Your task to perform on an android device: delete location history Image 0: 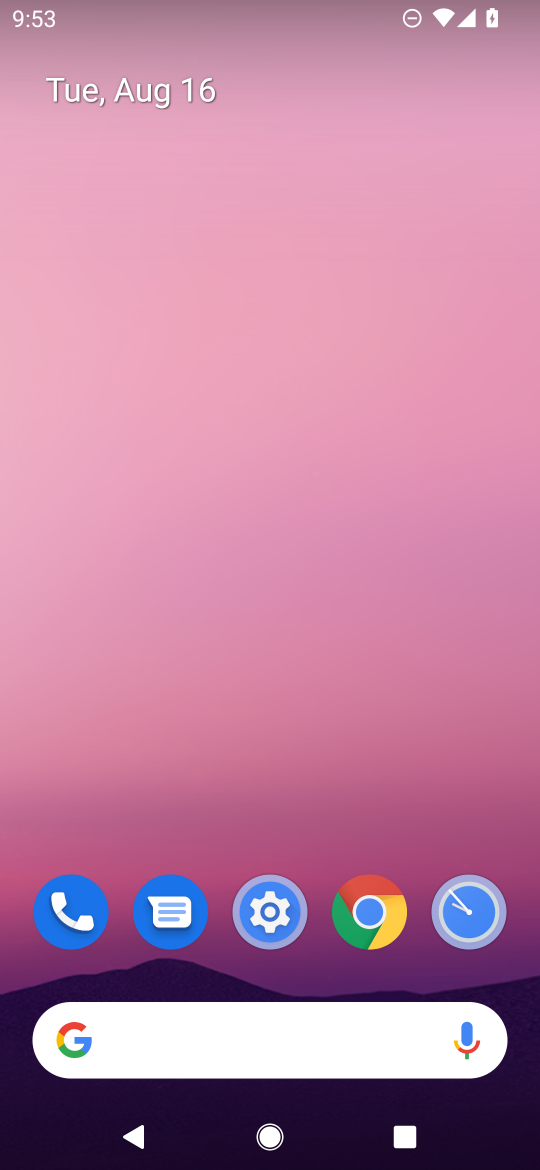
Step 0: drag from (204, 970) to (213, 84)
Your task to perform on an android device: delete location history Image 1: 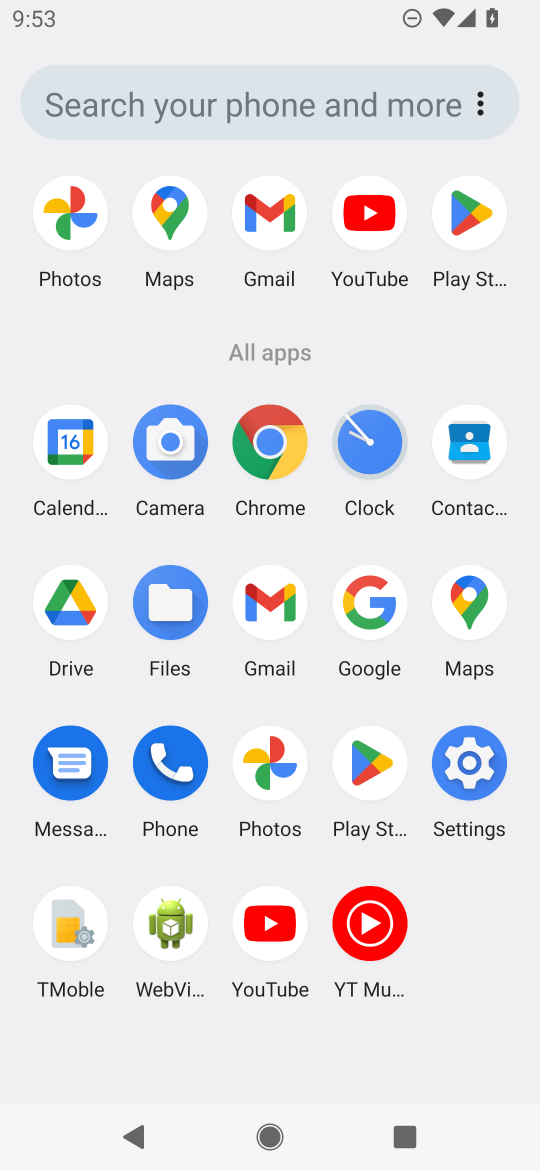
Step 1: click (177, 197)
Your task to perform on an android device: delete location history Image 2: 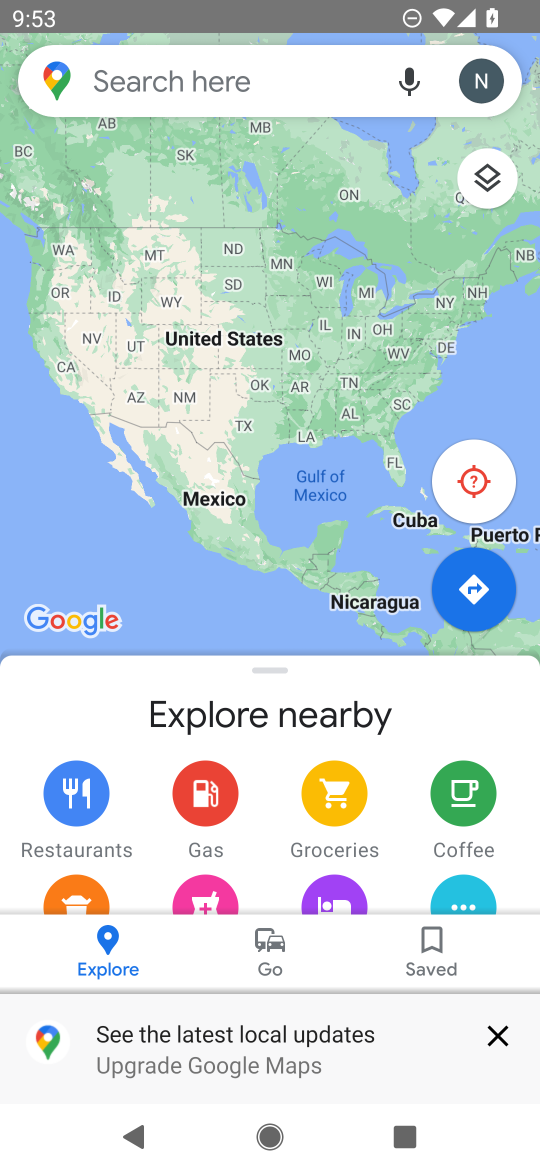
Step 2: click (492, 89)
Your task to perform on an android device: delete location history Image 3: 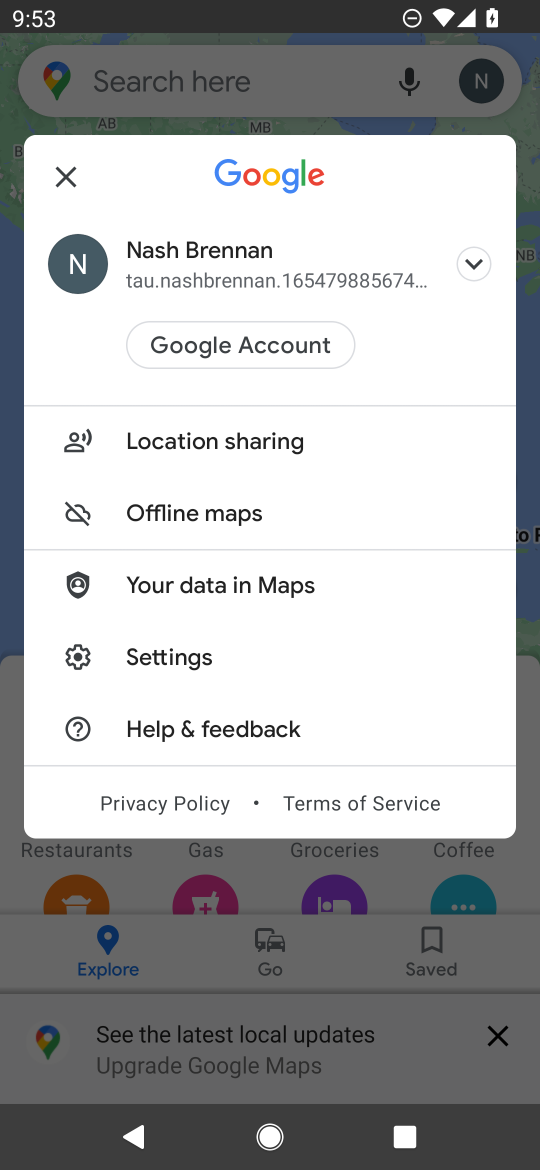
Step 3: click (254, 648)
Your task to perform on an android device: delete location history Image 4: 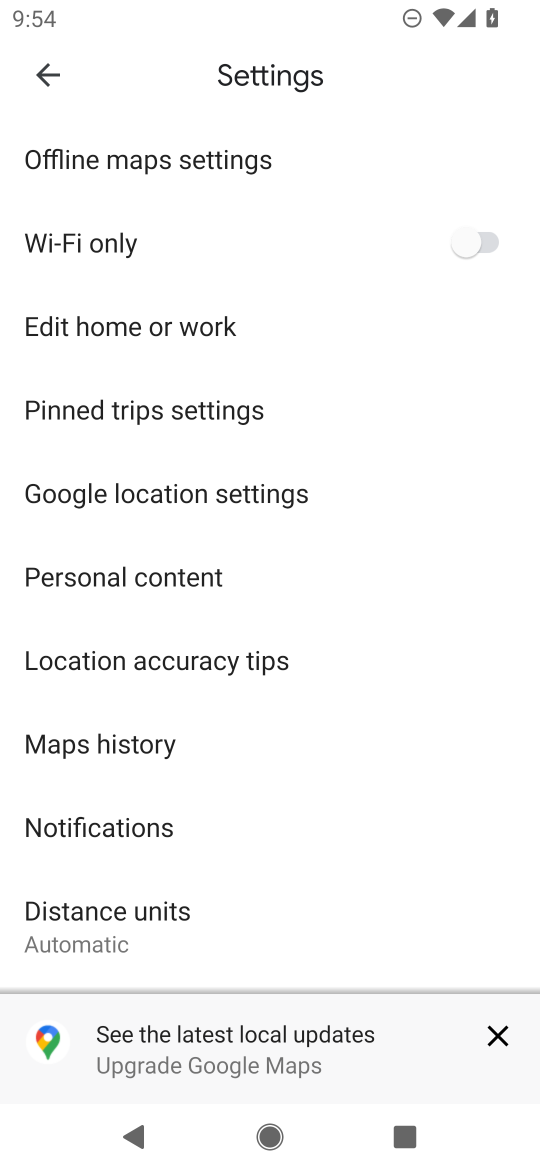
Step 4: click (41, 86)
Your task to perform on an android device: delete location history Image 5: 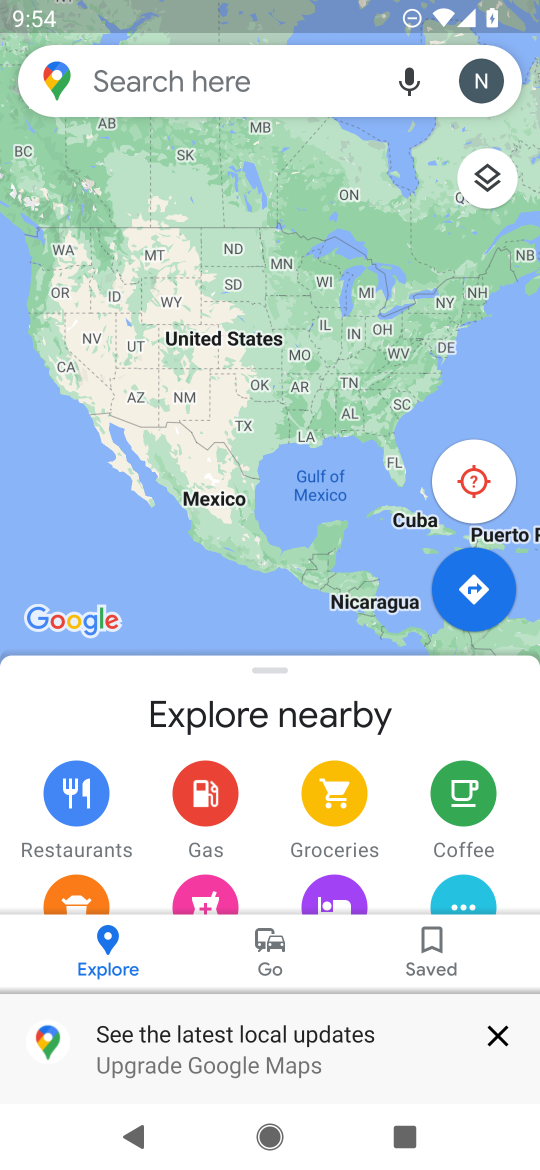
Step 5: click (469, 89)
Your task to perform on an android device: delete location history Image 6: 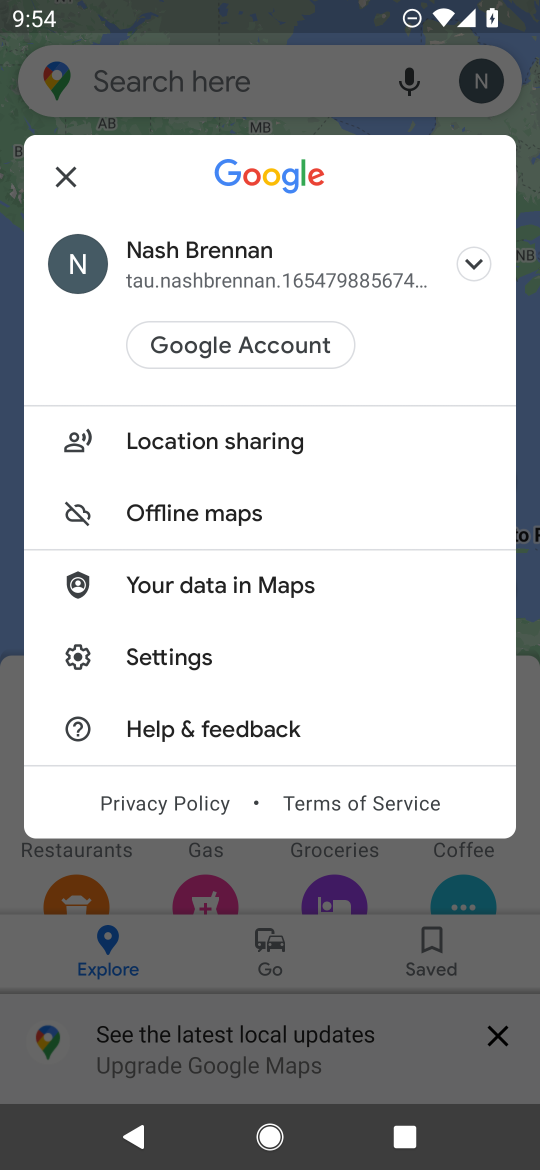
Step 6: click (183, 638)
Your task to perform on an android device: delete location history Image 7: 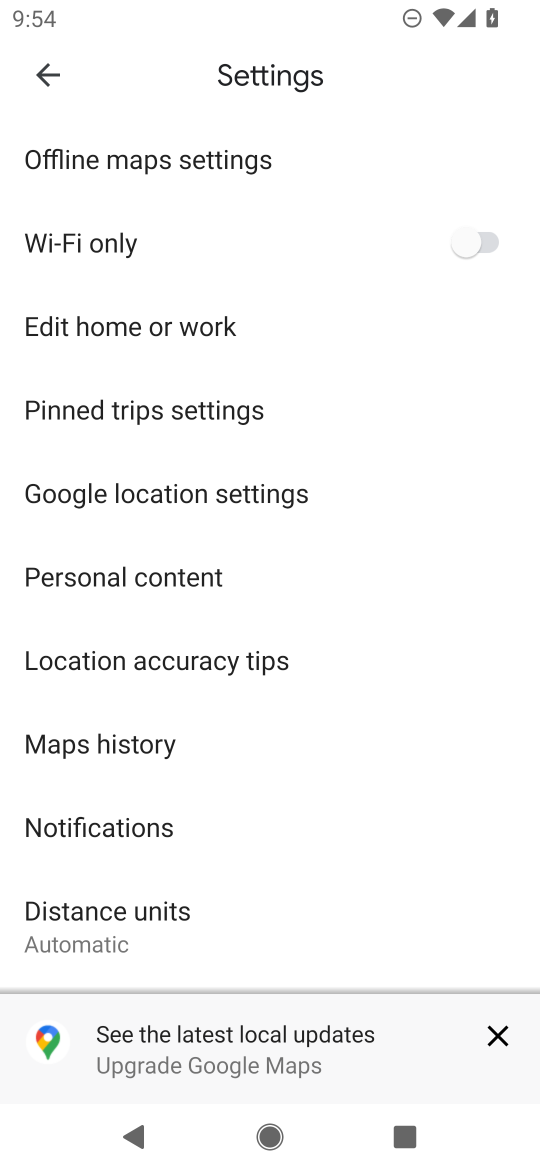
Step 7: click (182, 765)
Your task to perform on an android device: delete location history Image 8: 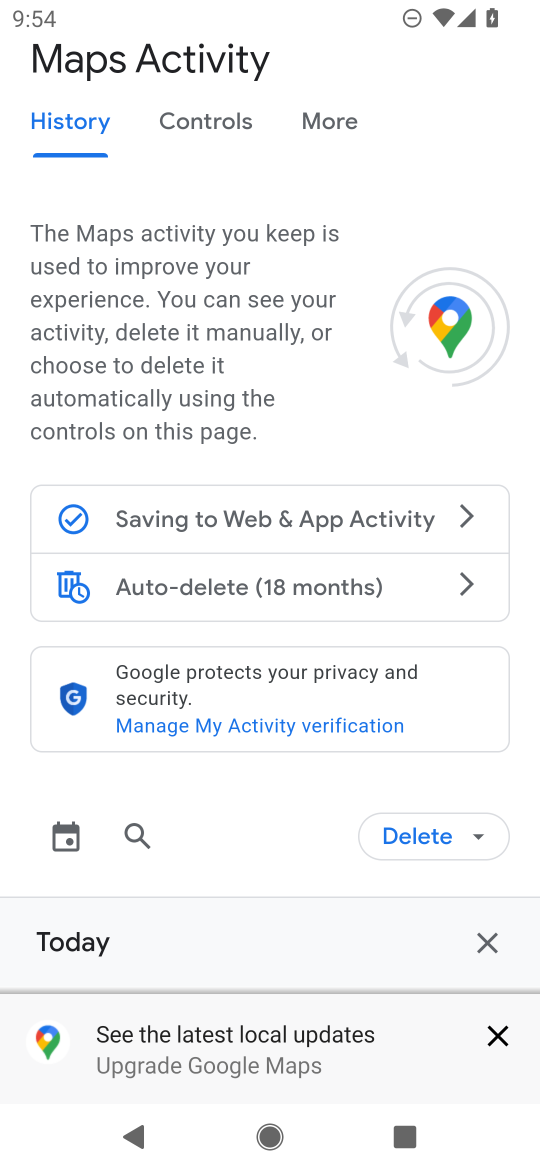
Step 8: click (446, 839)
Your task to perform on an android device: delete location history Image 9: 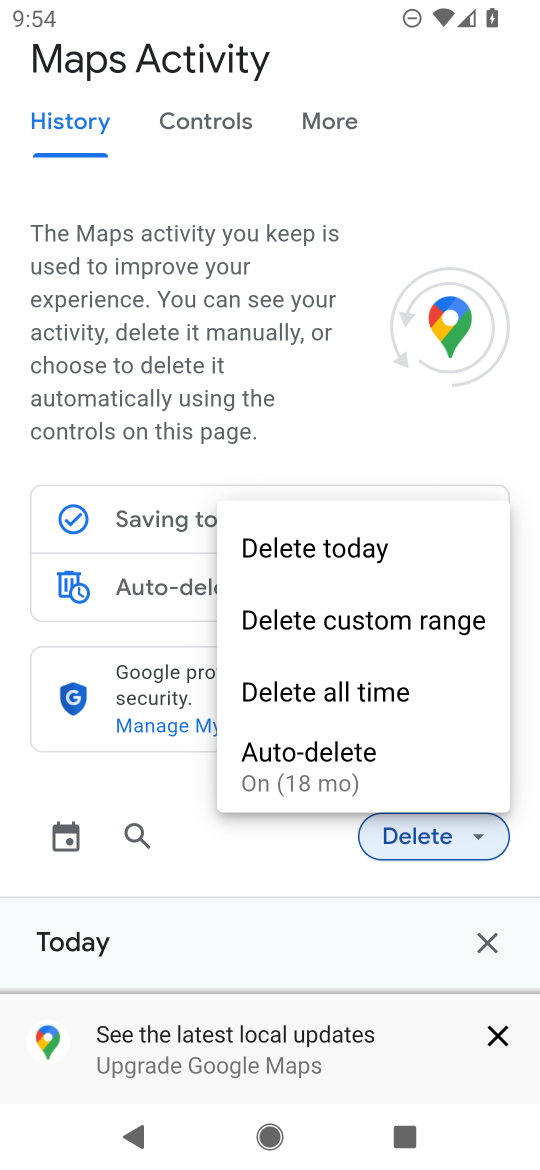
Step 9: click (342, 700)
Your task to perform on an android device: delete location history Image 10: 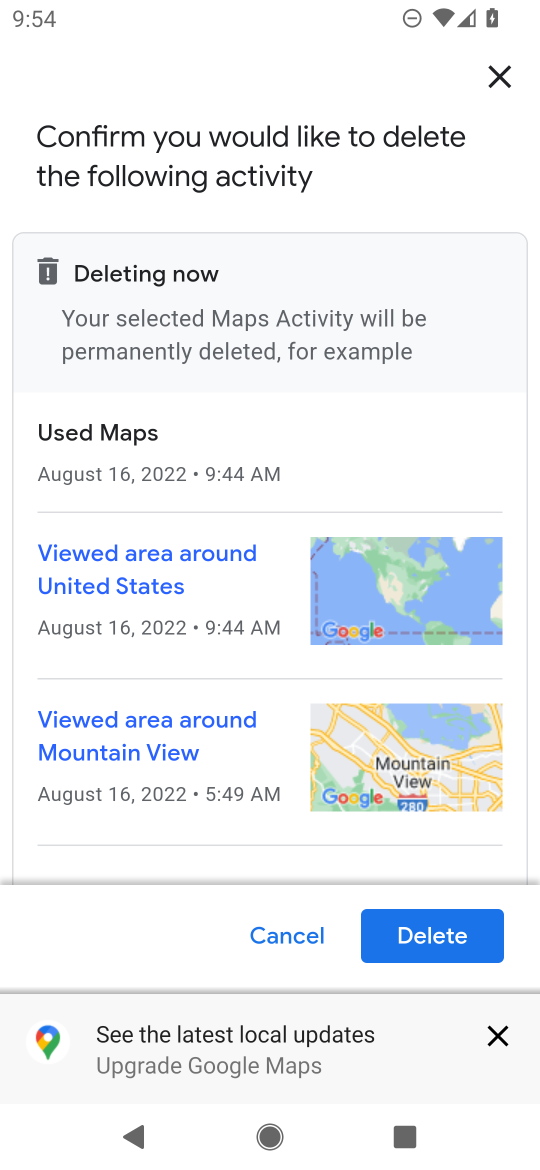
Step 10: click (439, 930)
Your task to perform on an android device: delete location history Image 11: 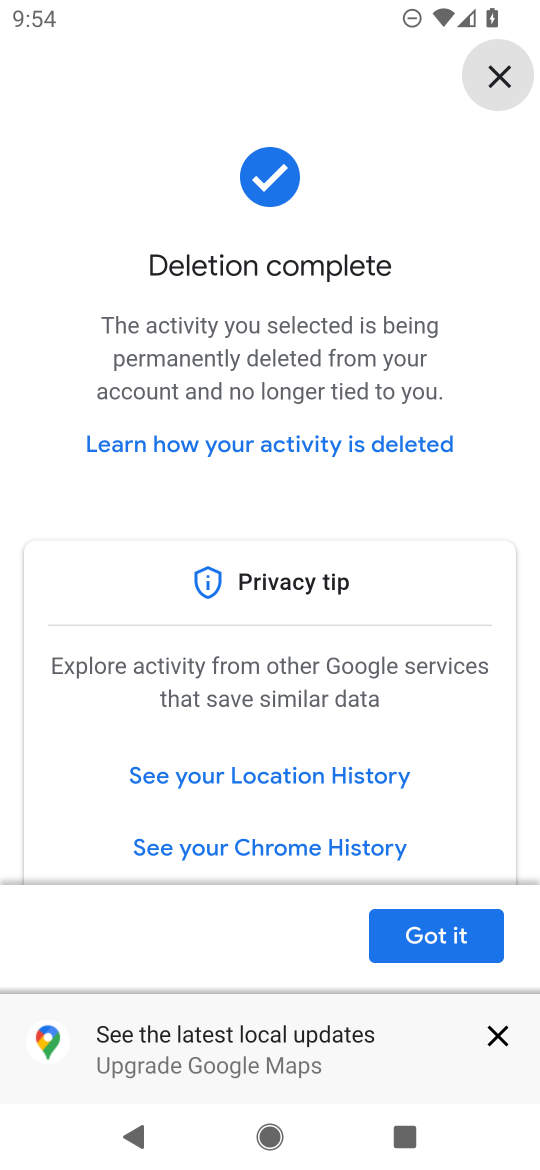
Step 11: click (439, 930)
Your task to perform on an android device: delete location history Image 12: 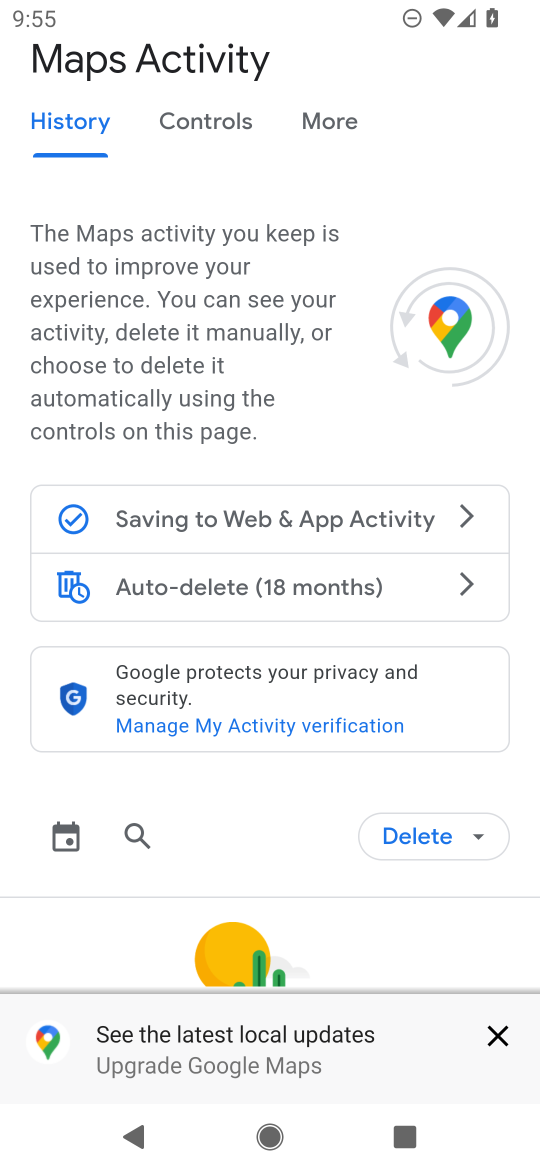
Step 12: task complete